Your task to perform on an android device: toggle airplane mode Image 0: 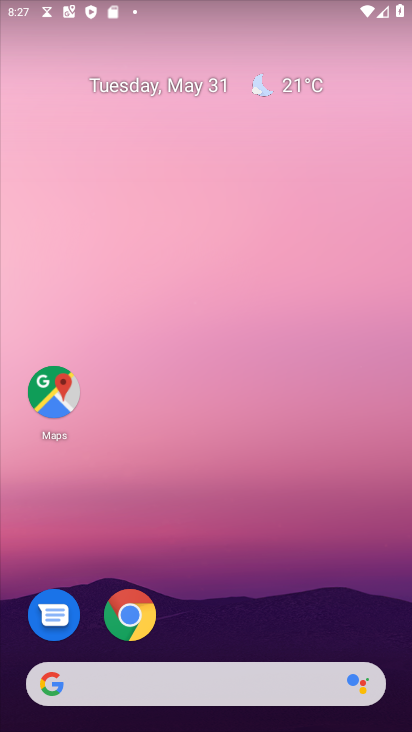
Step 0: press home button
Your task to perform on an android device: toggle airplane mode Image 1: 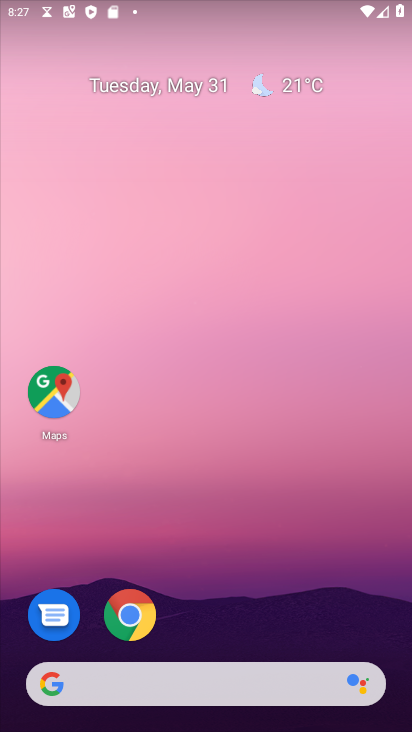
Step 1: drag from (169, 683) to (370, 15)
Your task to perform on an android device: toggle airplane mode Image 2: 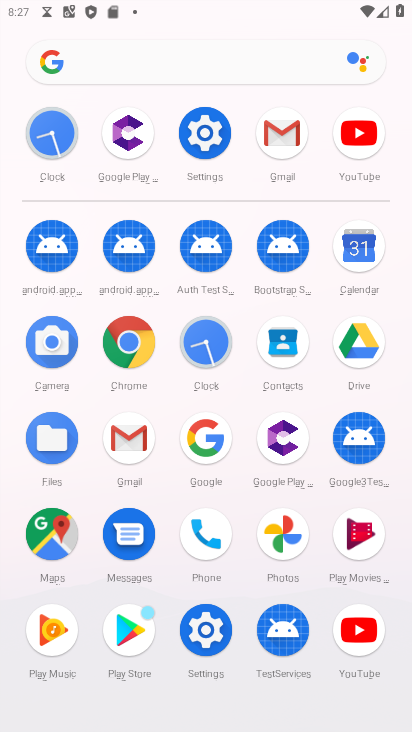
Step 2: click (198, 127)
Your task to perform on an android device: toggle airplane mode Image 3: 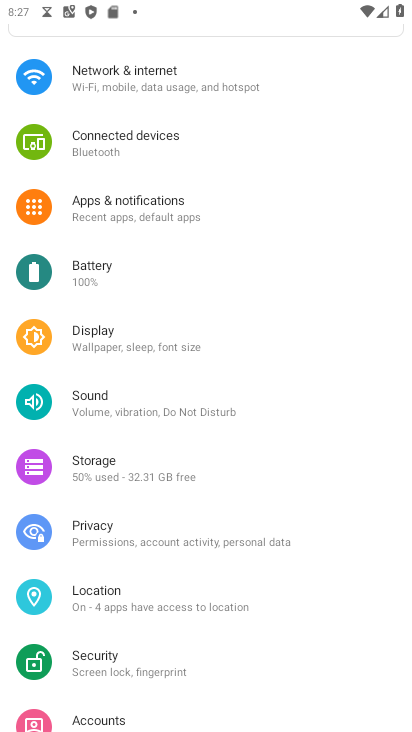
Step 3: click (195, 75)
Your task to perform on an android device: toggle airplane mode Image 4: 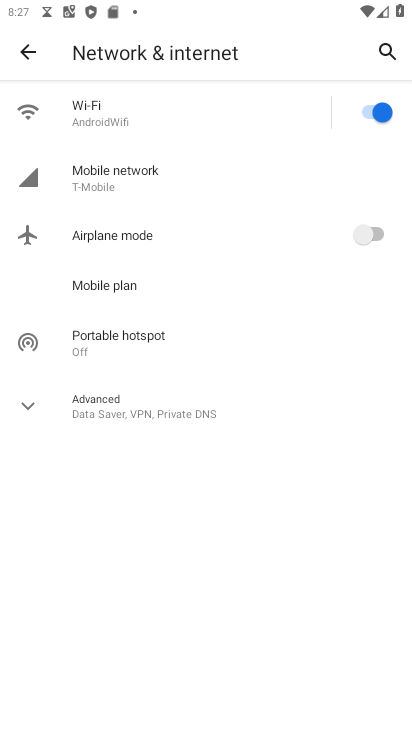
Step 4: click (380, 233)
Your task to perform on an android device: toggle airplane mode Image 5: 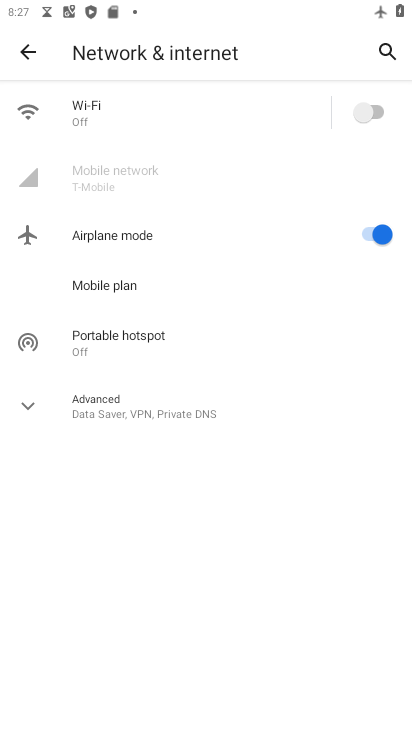
Step 5: task complete